Your task to perform on an android device: turn on priority inbox in the gmail app Image 0: 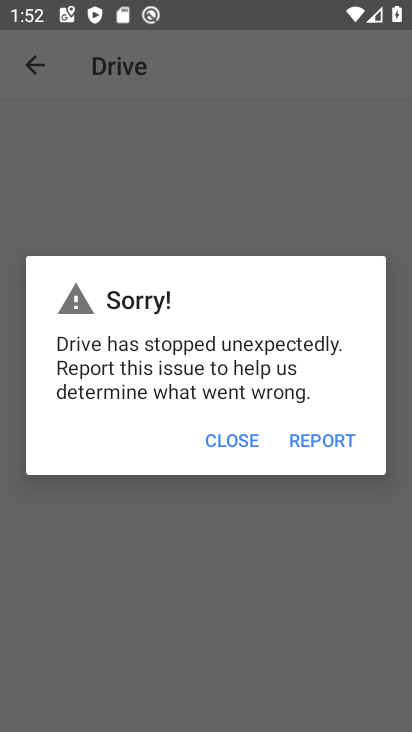
Step 0: press home button
Your task to perform on an android device: turn on priority inbox in the gmail app Image 1: 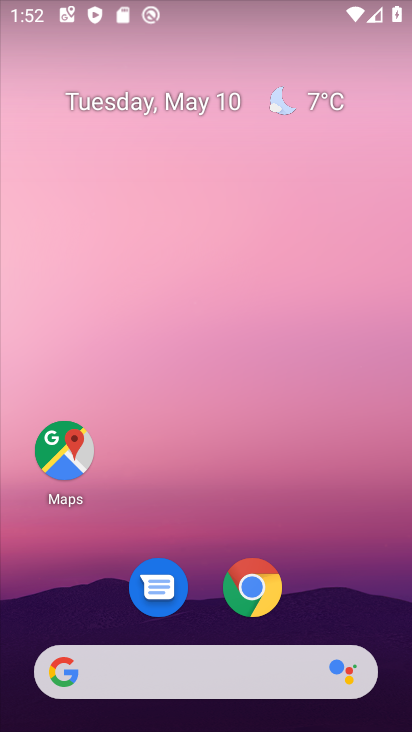
Step 1: drag from (362, 584) to (301, 78)
Your task to perform on an android device: turn on priority inbox in the gmail app Image 2: 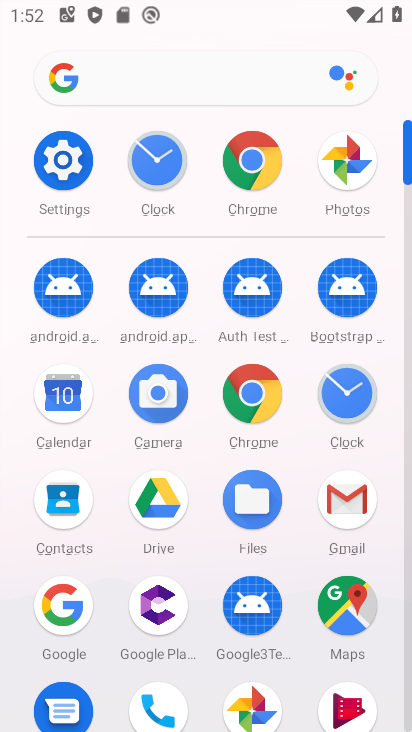
Step 2: click (350, 513)
Your task to perform on an android device: turn on priority inbox in the gmail app Image 3: 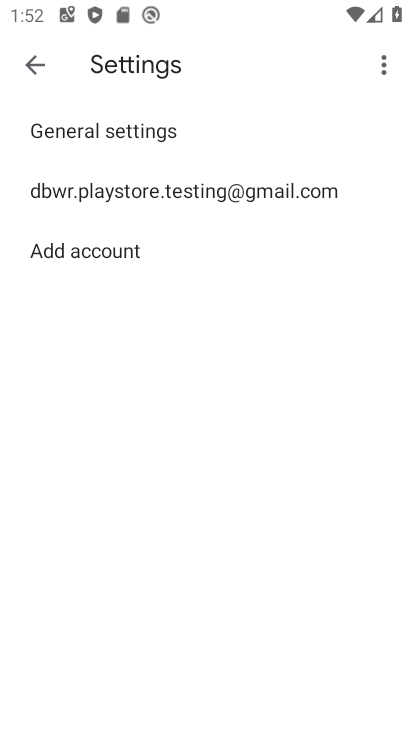
Step 3: click (76, 184)
Your task to perform on an android device: turn on priority inbox in the gmail app Image 4: 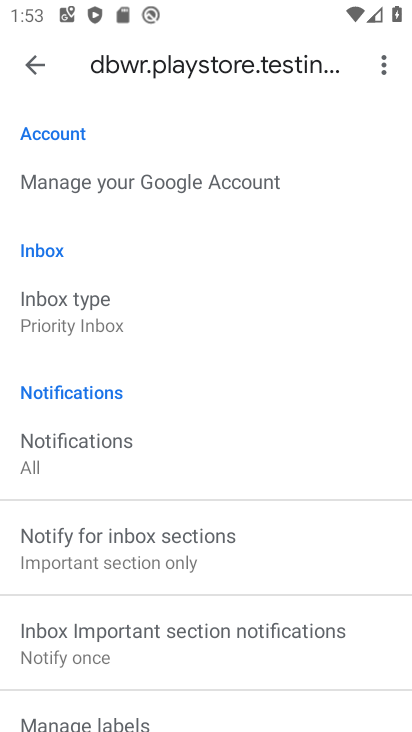
Step 4: task complete